Your task to perform on an android device: Show me recent news Image 0: 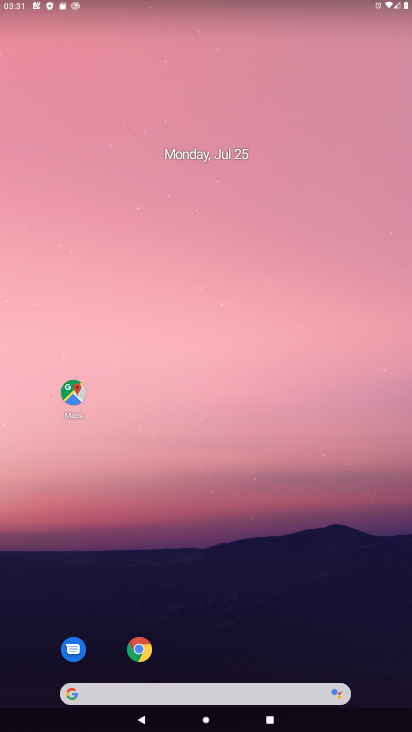
Step 0: drag from (6, 318) to (404, 312)
Your task to perform on an android device: Show me recent news Image 1: 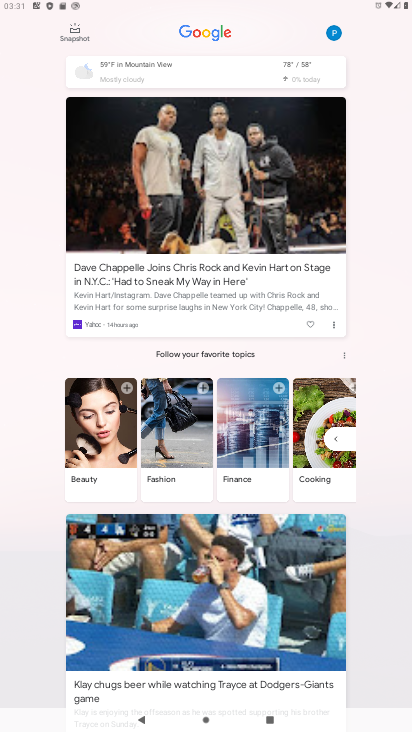
Step 1: task complete